Your task to perform on an android device: Go to Amazon Image 0: 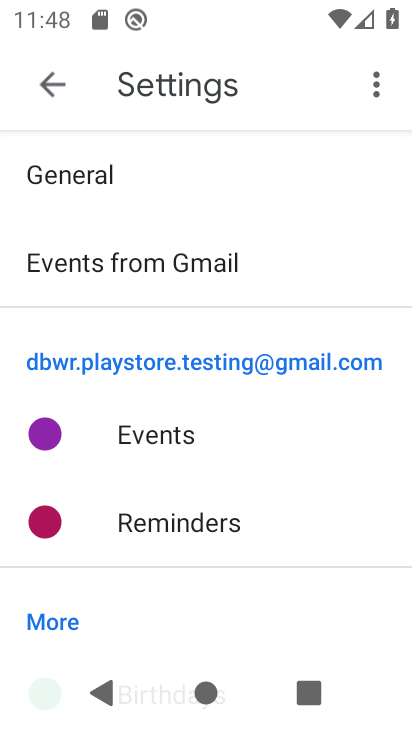
Step 0: press home button
Your task to perform on an android device: Go to Amazon Image 1: 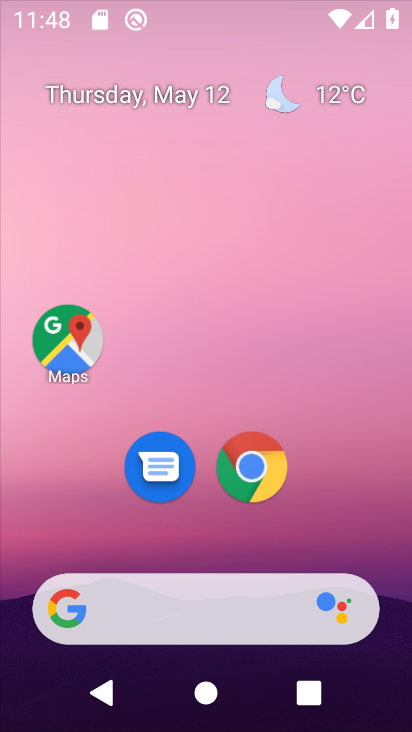
Step 1: drag from (333, 541) to (228, 43)
Your task to perform on an android device: Go to Amazon Image 2: 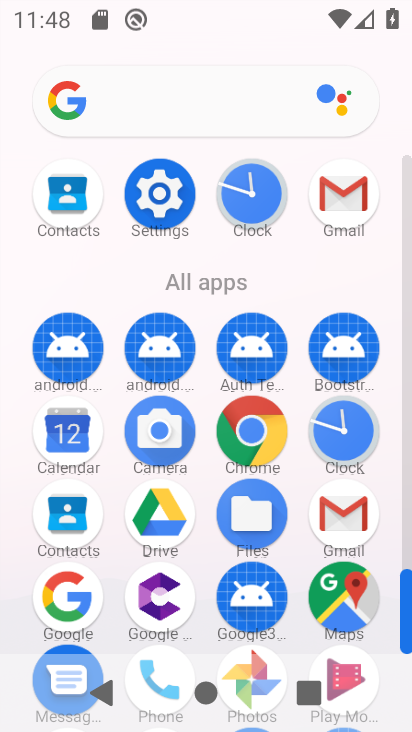
Step 2: click (251, 424)
Your task to perform on an android device: Go to Amazon Image 3: 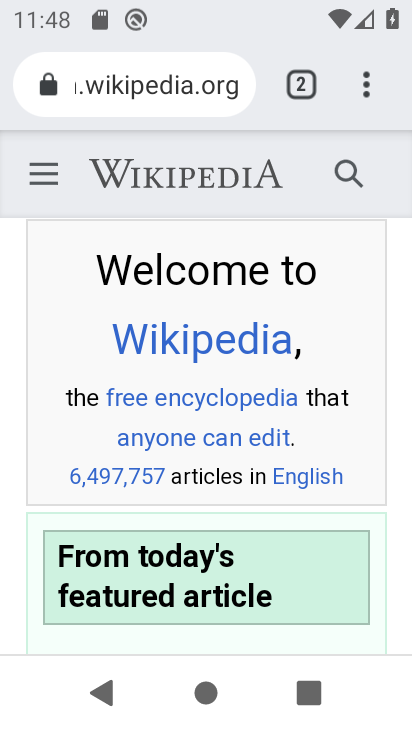
Step 3: click (288, 84)
Your task to perform on an android device: Go to Amazon Image 4: 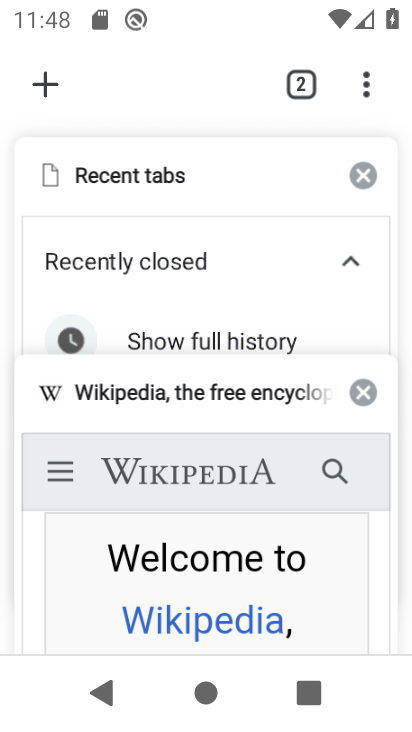
Step 4: click (27, 80)
Your task to perform on an android device: Go to Amazon Image 5: 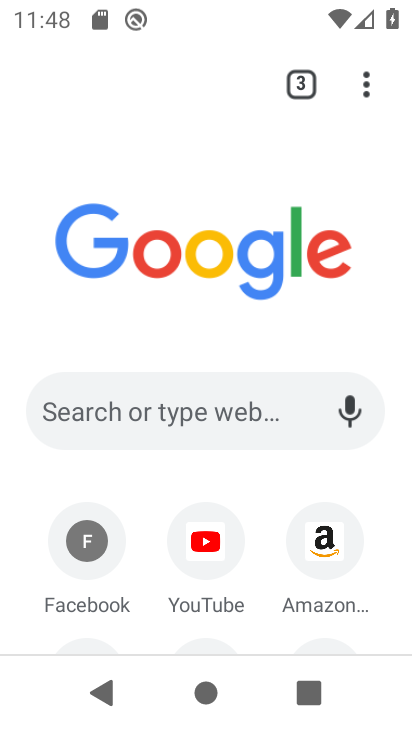
Step 5: click (330, 527)
Your task to perform on an android device: Go to Amazon Image 6: 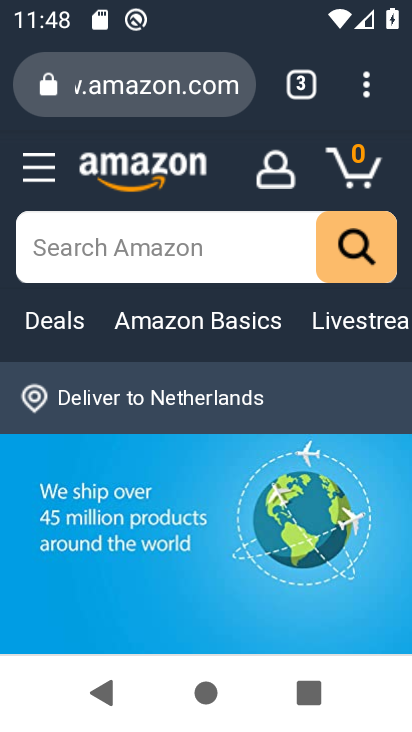
Step 6: task complete